Your task to perform on an android device: change text size in settings app Image 0: 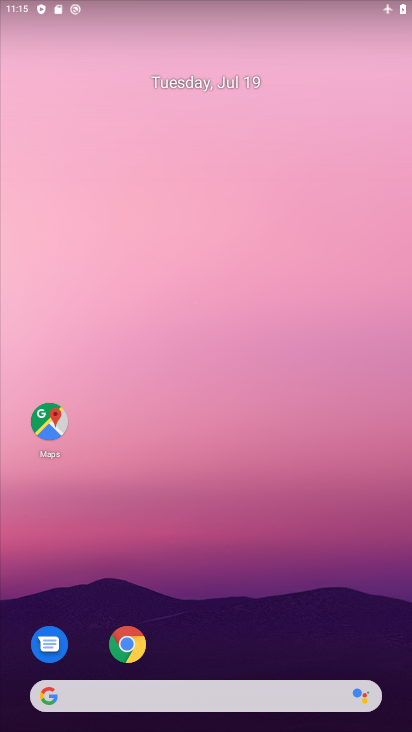
Step 0: drag from (52, 714) to (92, 82)
Your task to perform on an android device: change text size in settings app Image 1: 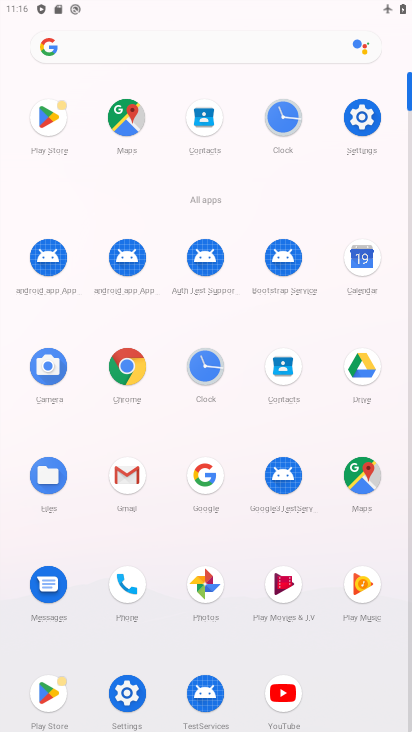
Step 1: click (130, 673)
Your task to perform on an android device: change text size in settings app Image 2: 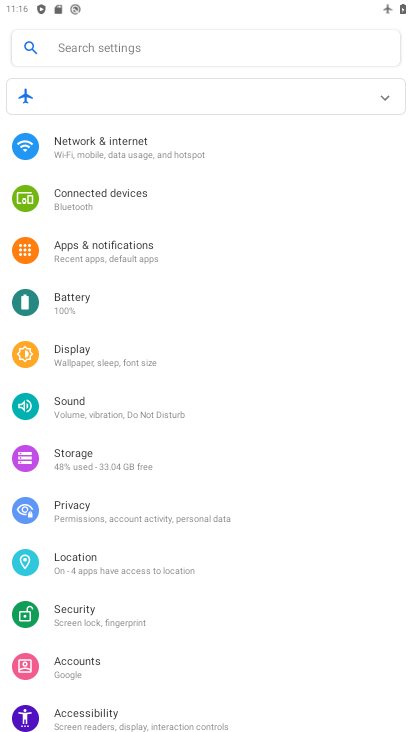
Step 2: click (87, 368)
Your task to perform on an android device: change text size in settings app Image 3: 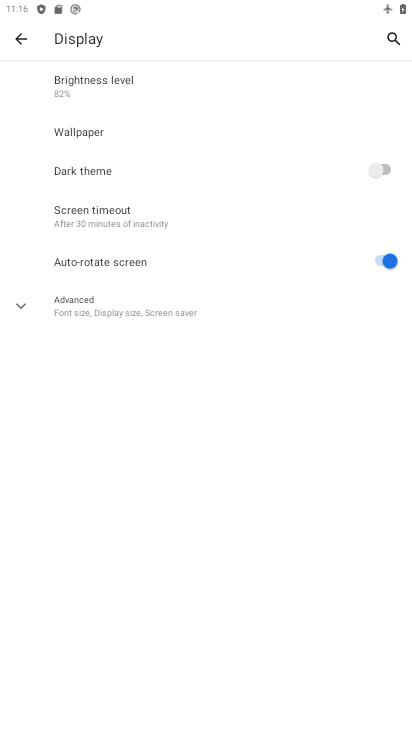
Step 3: click (101, 295)
Your task to perform on an android device: change text size in settings app Image 4: 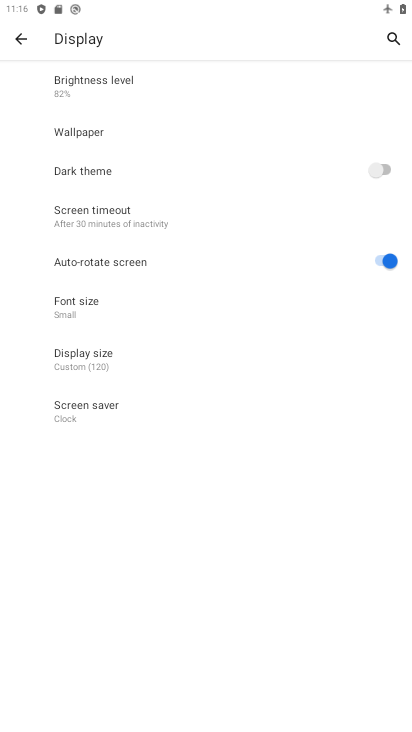
Step 4: click (109, 307)
Your task to perform on an android device: change text size in settings app Image 5: 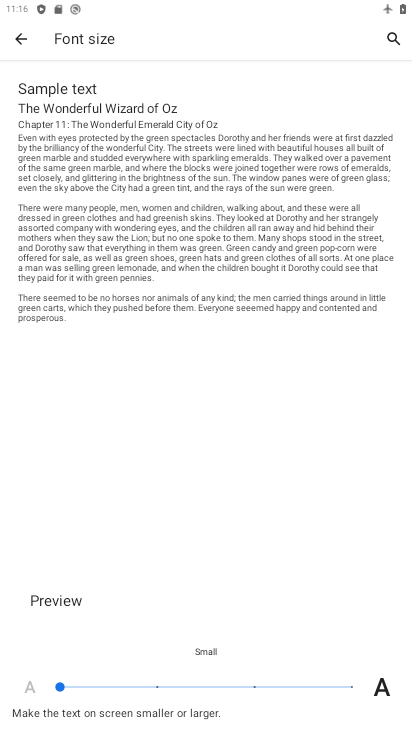
Step 5: click (158, 687)
Your task to perform on an android device: change text size in settings app Image 6: 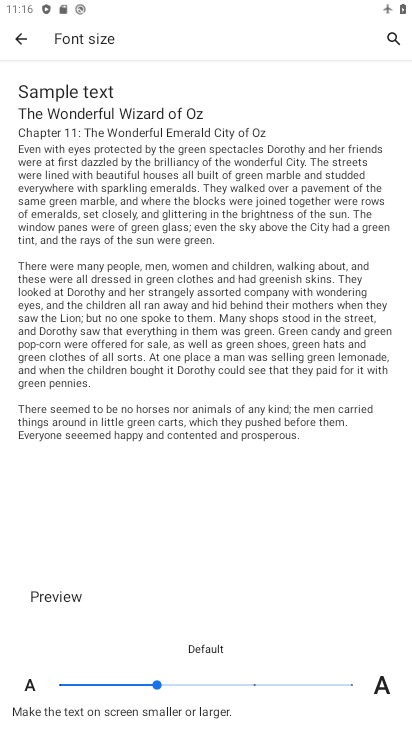
Step 6: task complete